Your task to perform on an android device: open app "Microsoft Outlook" (install if not already installed) Image 0: 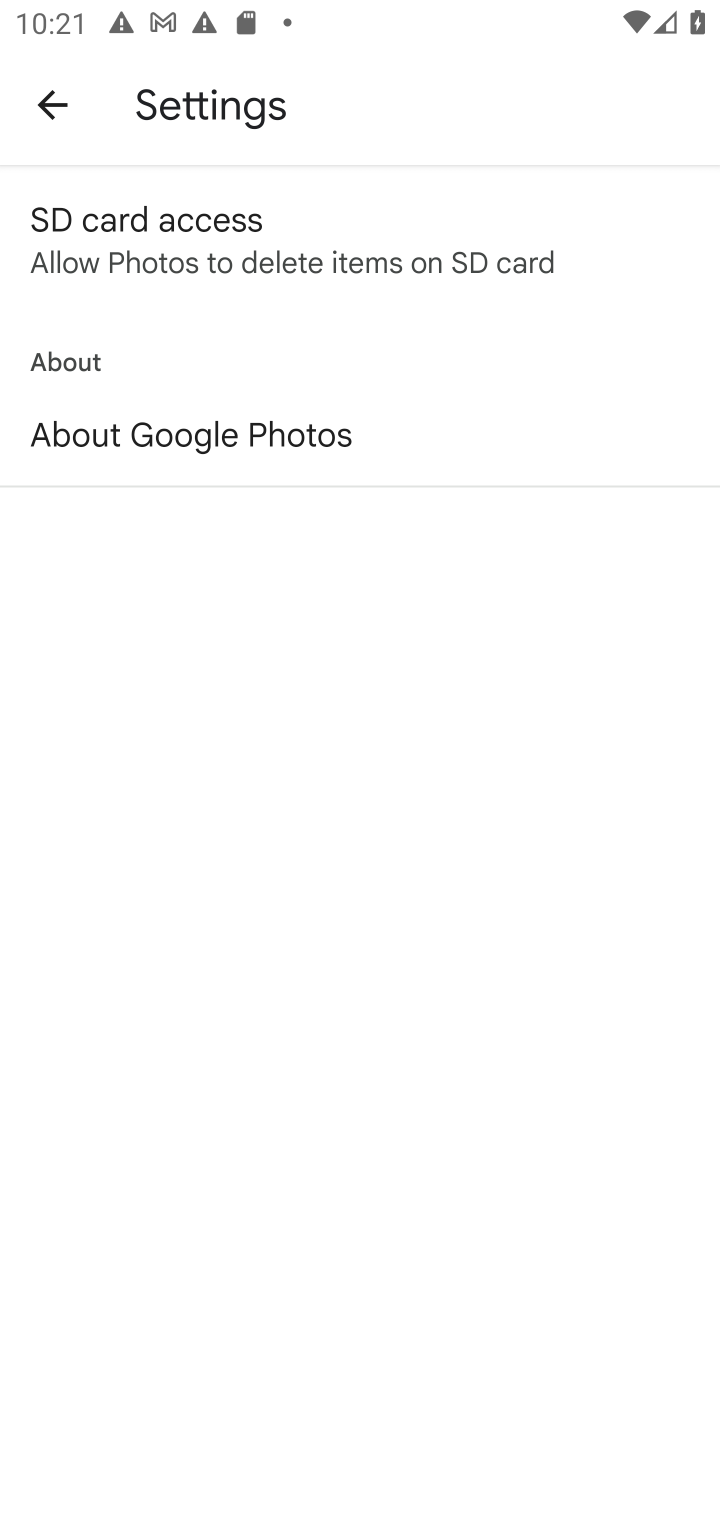
Step 0: press home button
Your task to perform on an android device: open app "Microsoft Outlook" (install if not already installed) Image 1: 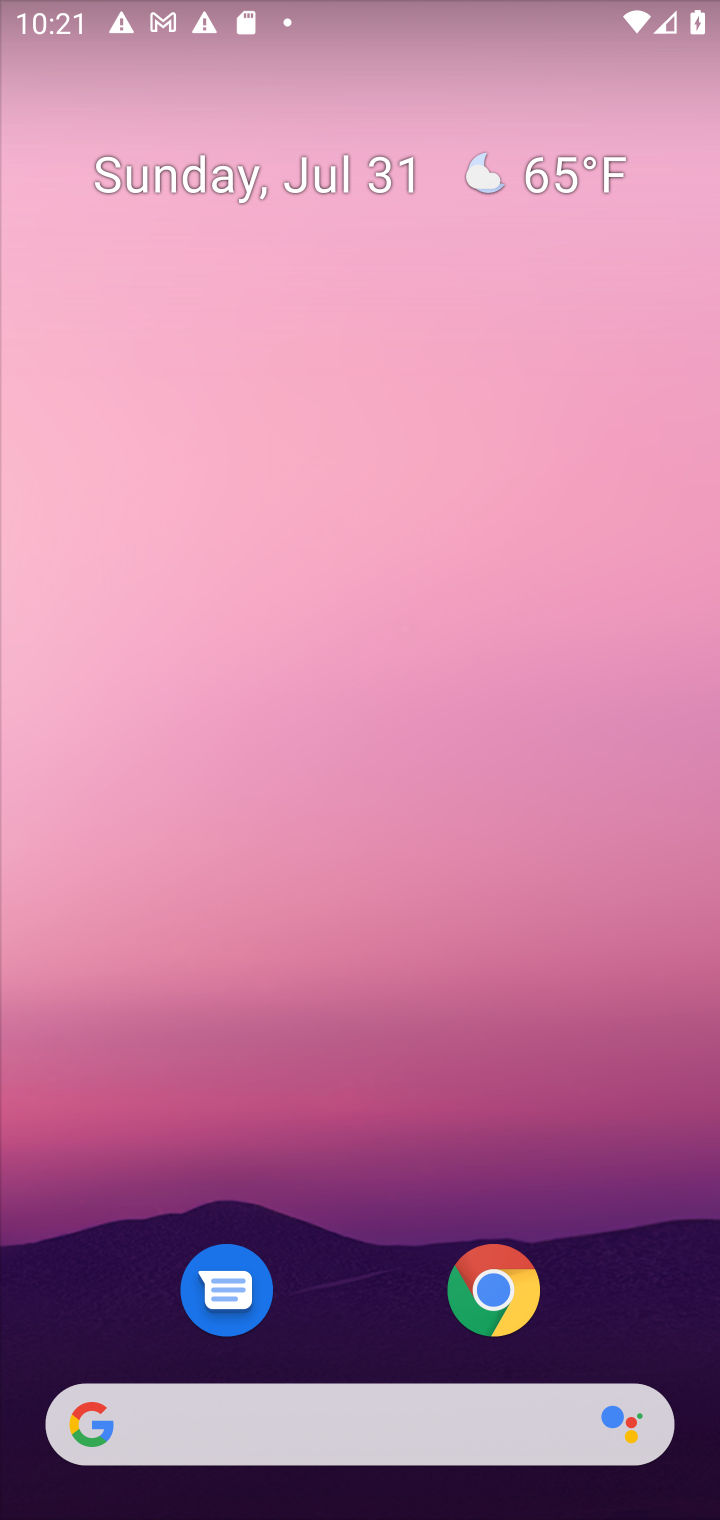
Step 1: drag from (661, 1287) to (689, 89)
Your task to perform on an android device: open app "Microsoft Outlook" (install if not already installed) Image 2: 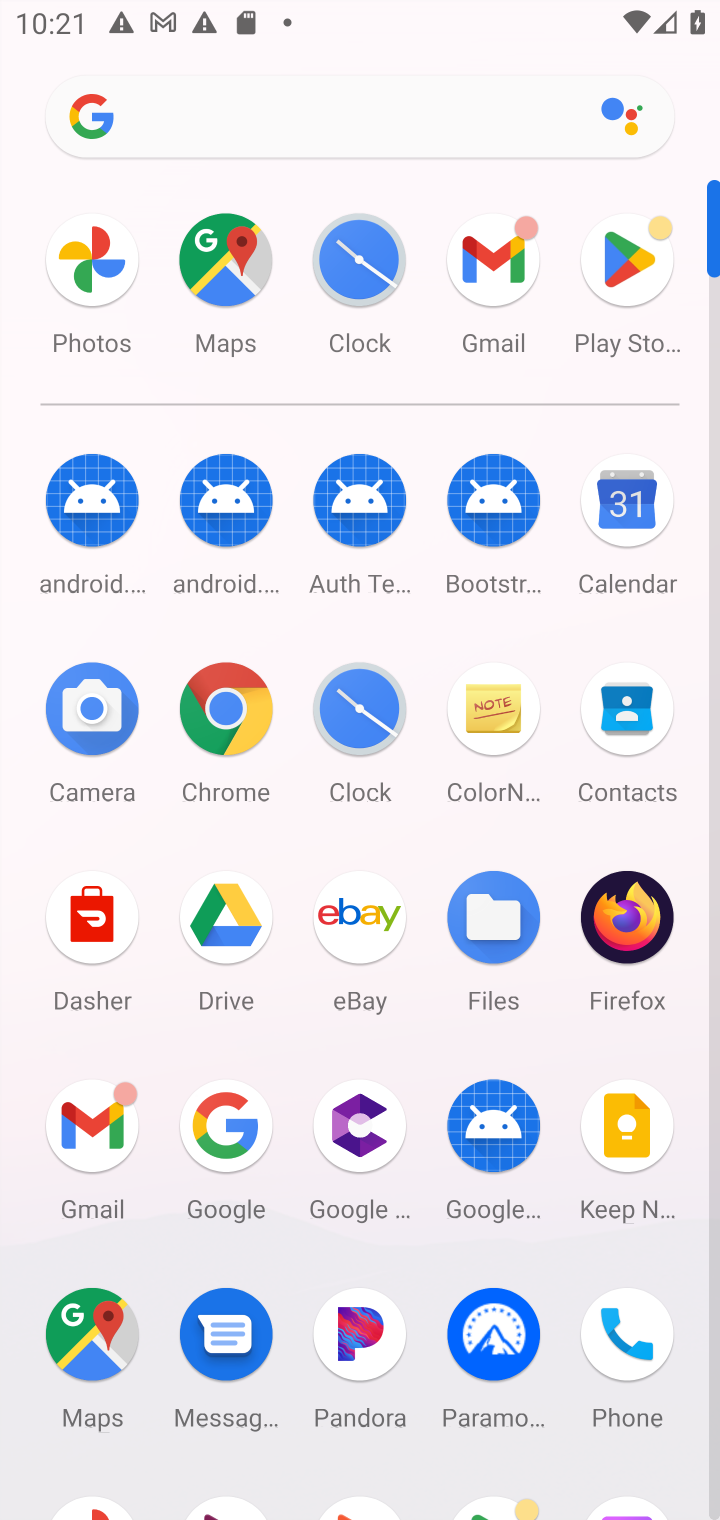
Step 2: click (640, 262)
Your task to perform on an android device: open app "Microsoft Outlook" (install if not already installed) Image 3: 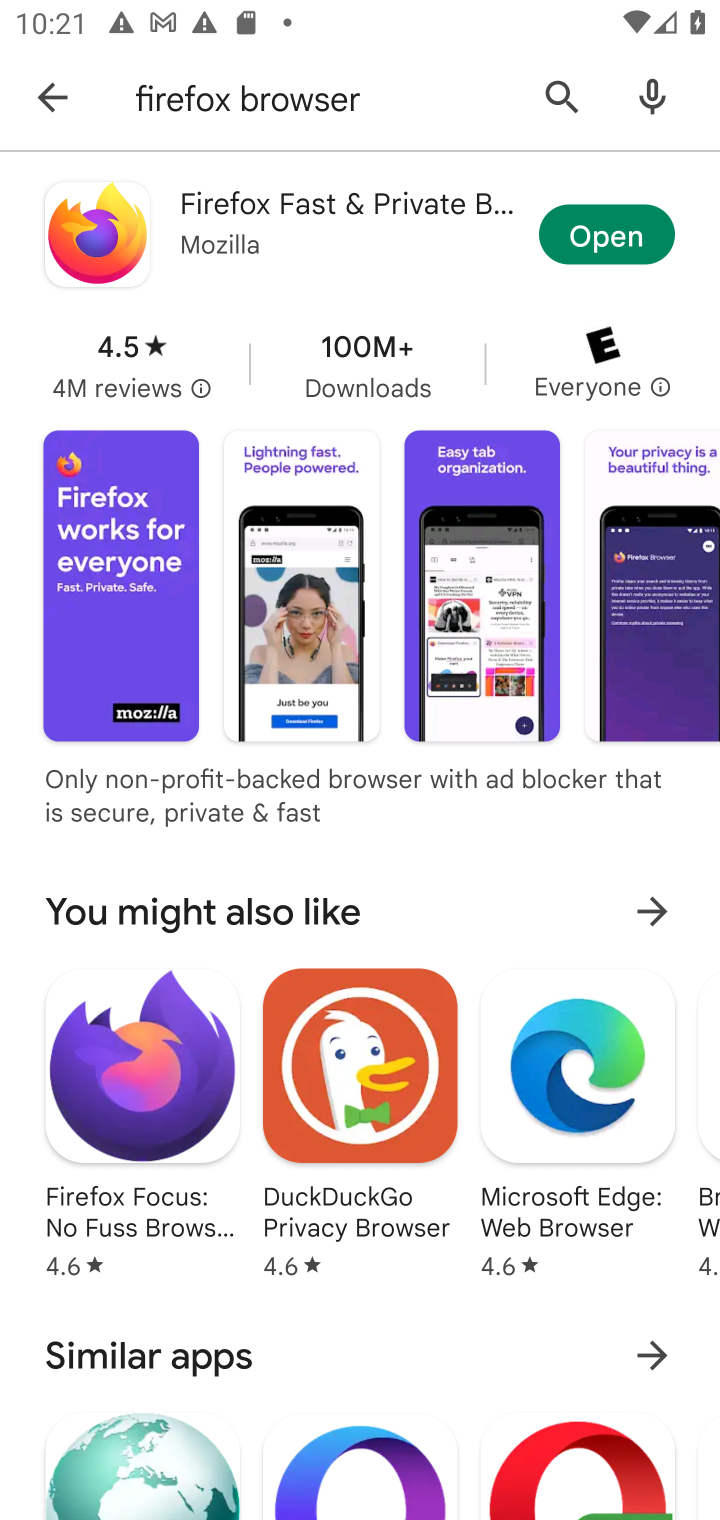
Step 3: click (559, 95)
Your task to perform on an android device: open app "Microsoft Outlook" (install if not already installed) Image 4: 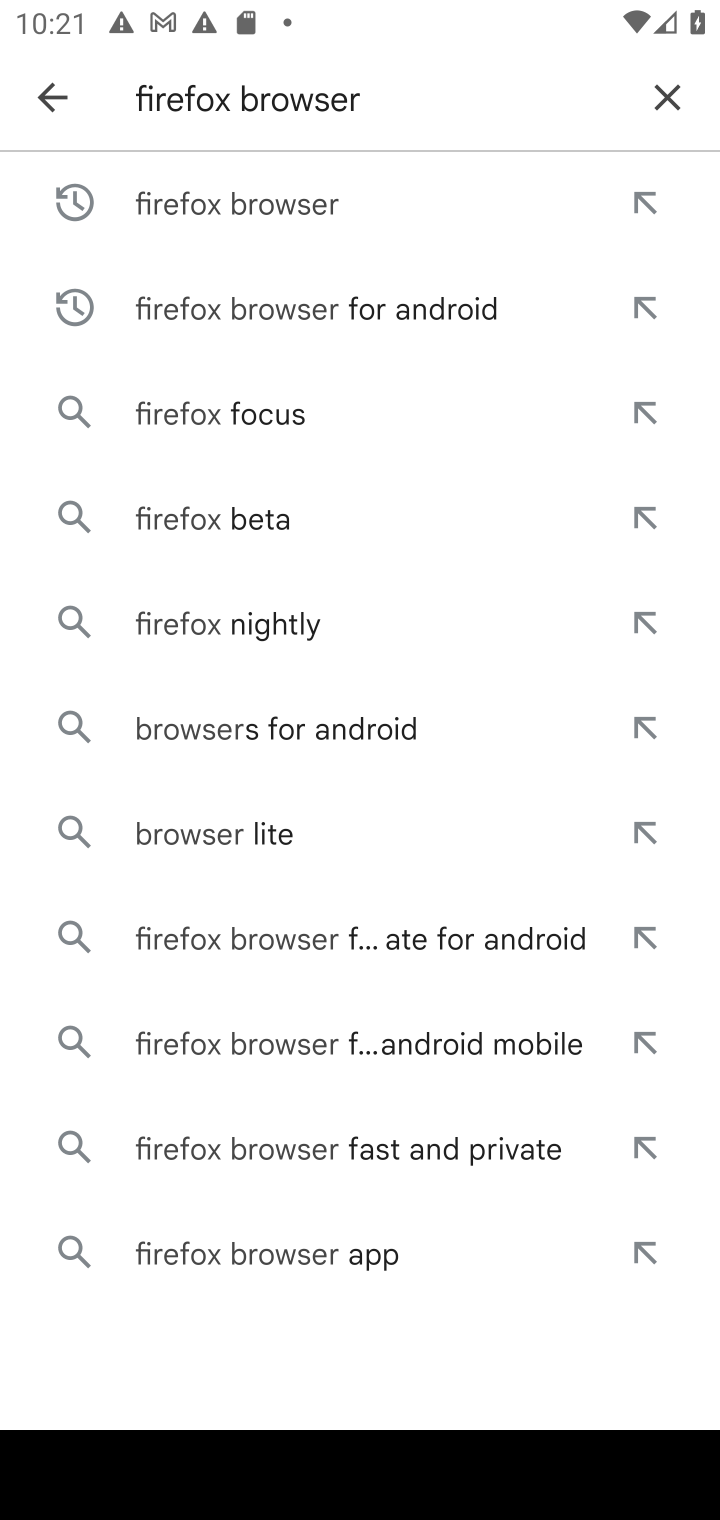
Step 4: click (671, 101)
Your task to perform on an android device: open app "Microsoft Outlook" (install if not already installed) Image 5: 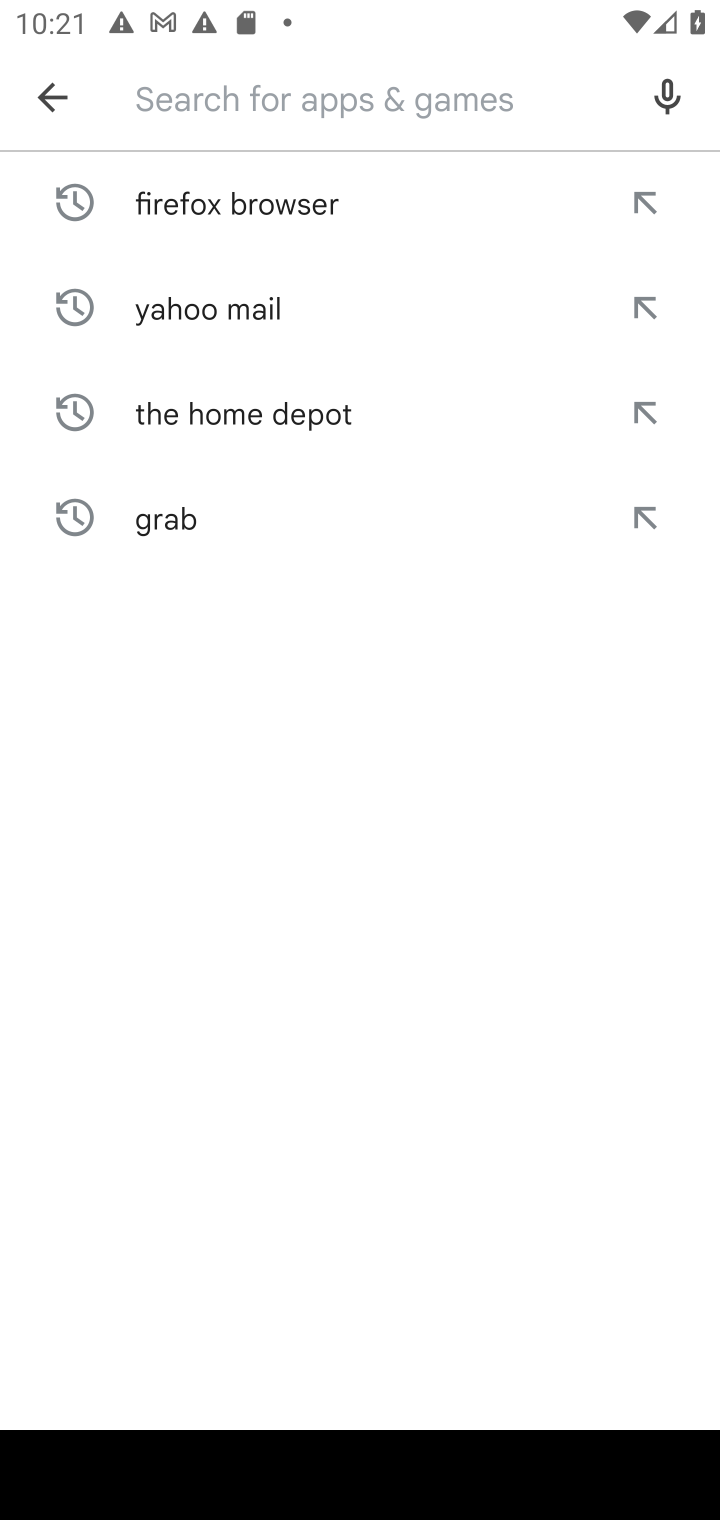
Step 5: type "microsoft oulook"
Your task to perform on an android device: open app "Microsoft Outlook" (install if not already installed) Image 6: 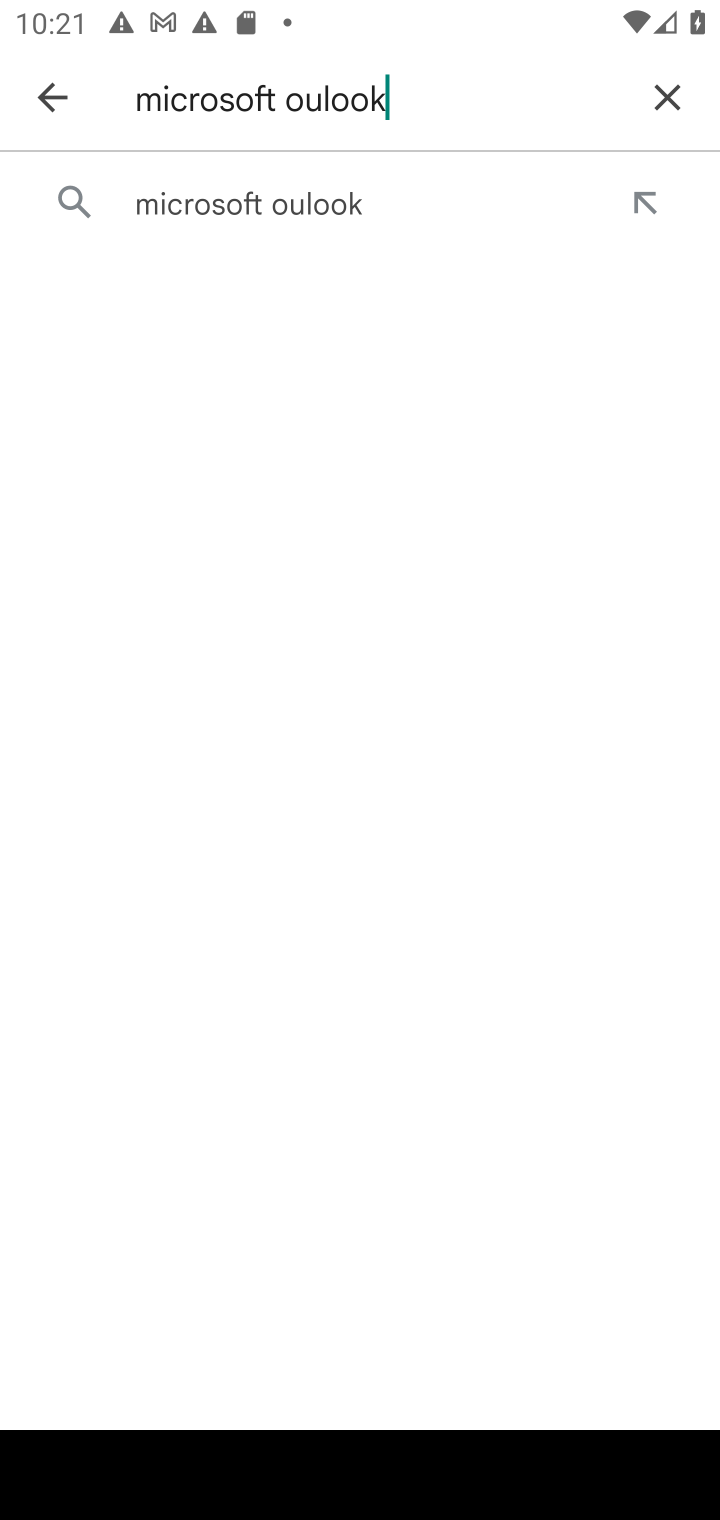
Step 6: click (332, 178)
Your task to perform on an android device: open app "Microsoft Outlook" (install if not already installed) Image 7: 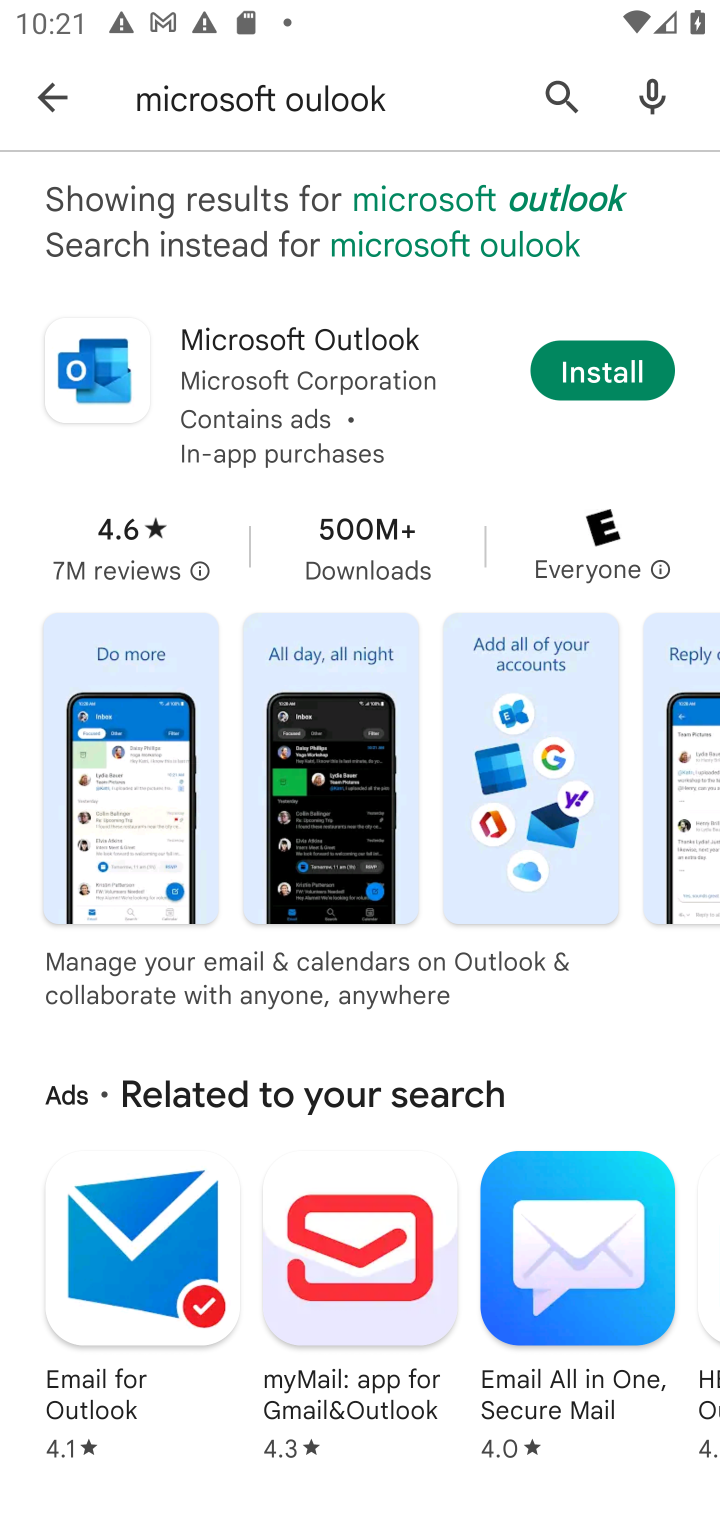
Step 7: click (603, 372)
Your task to perform on an android device: open app "Microsoft Outlook" (install if not already installed) Image 8: 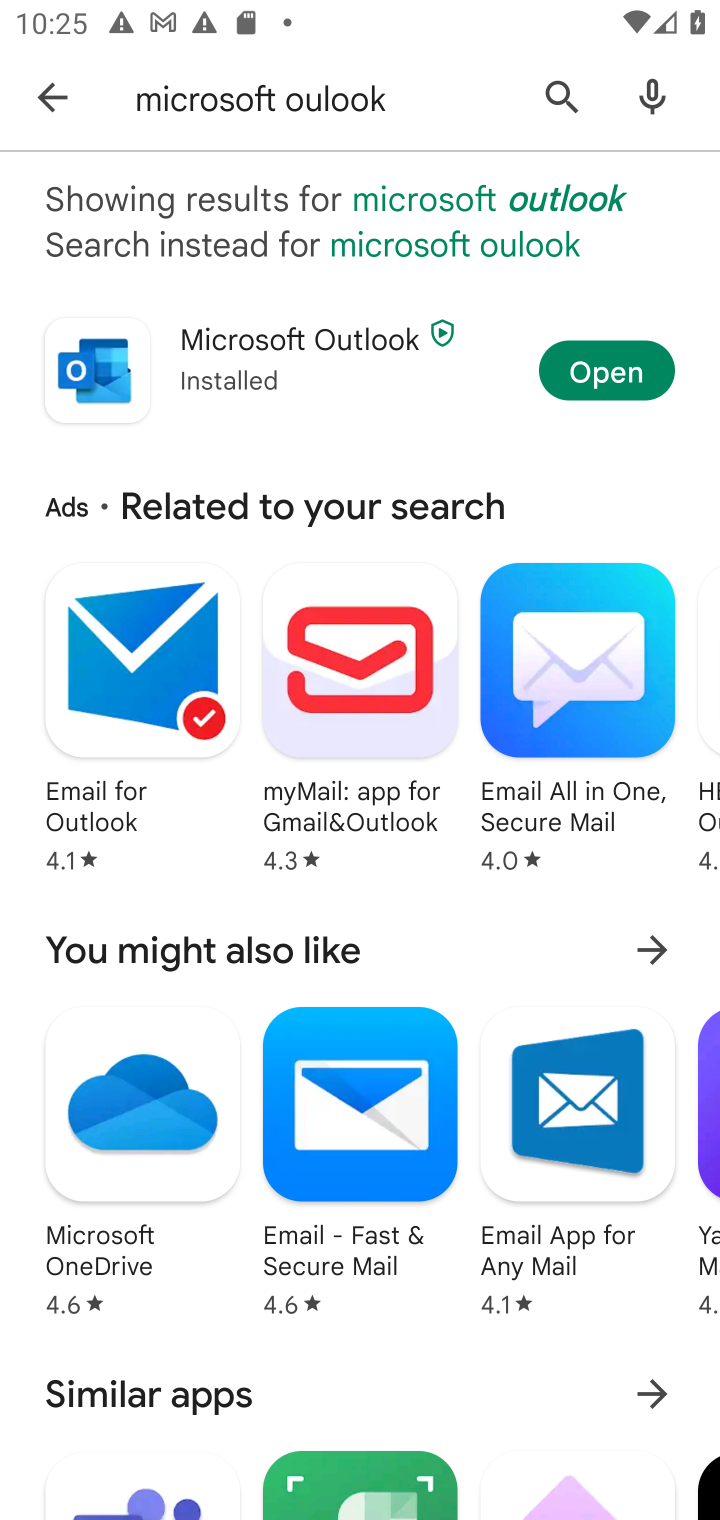
Step 8: task complete